Your task to perform on an android device: Open network settings Image 0: 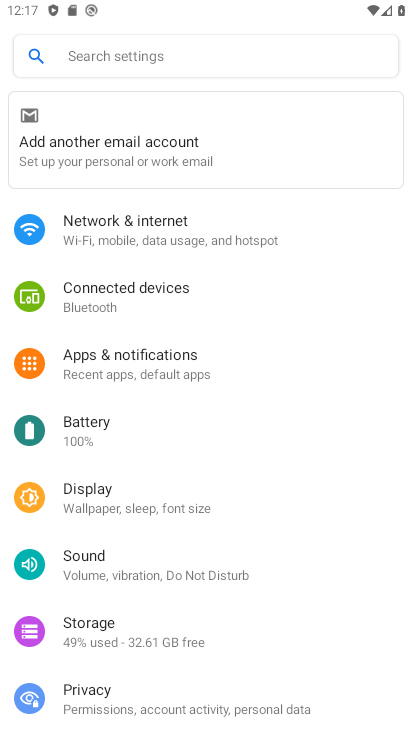
Step 0: click (164, 244)
Your task to perform on an android device: Open network settings Image 1: 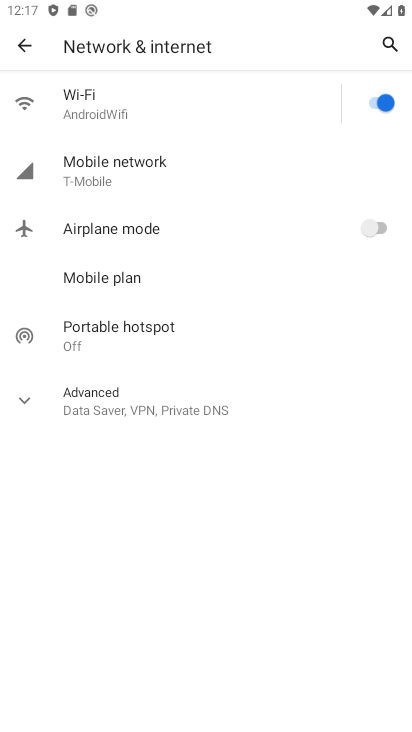
Step 1: task complete